Your task to perform on an android device: refresh tabs in the chrome app Image 0: 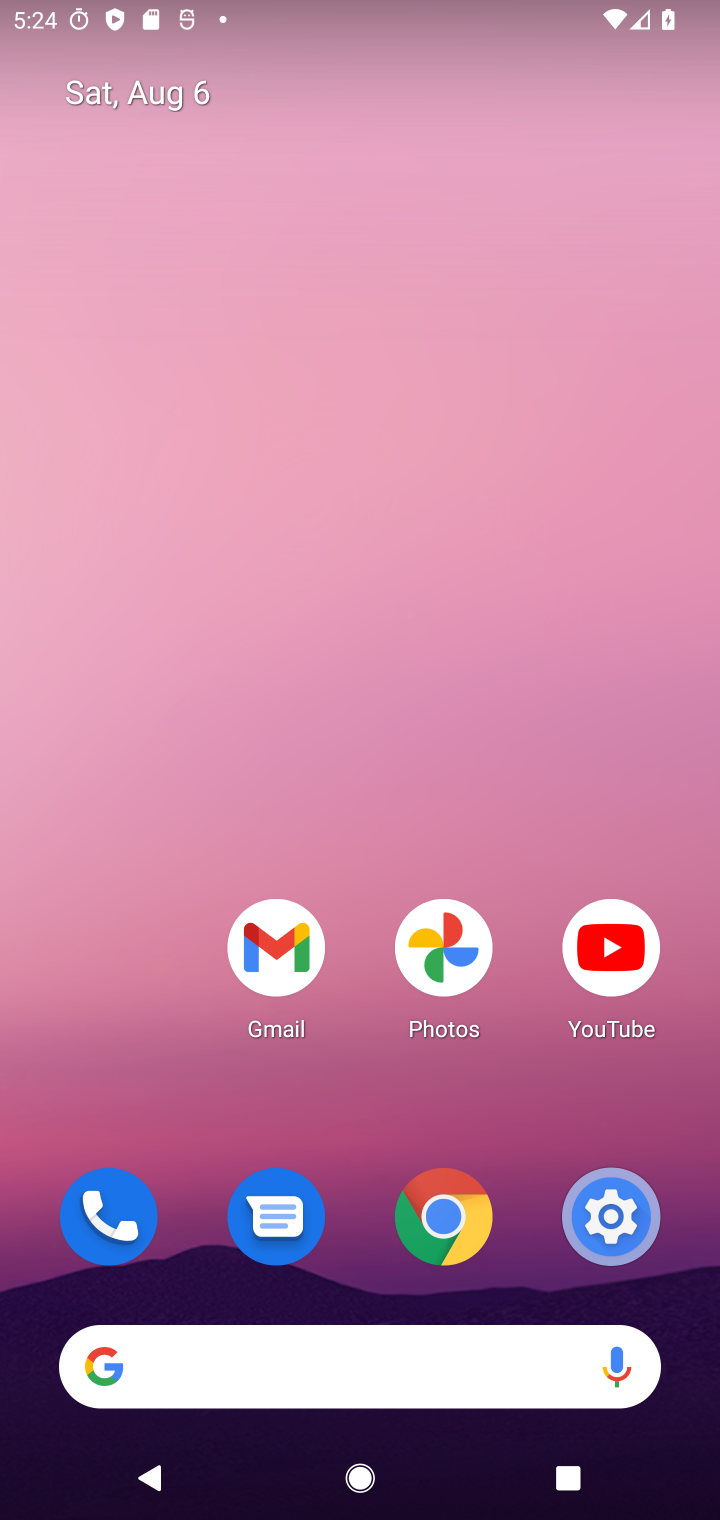
Step 0: drag from (353, 1078) to (564, 2)
Your task to perform on an android device: refresh tabs in the chrome app Image 1: 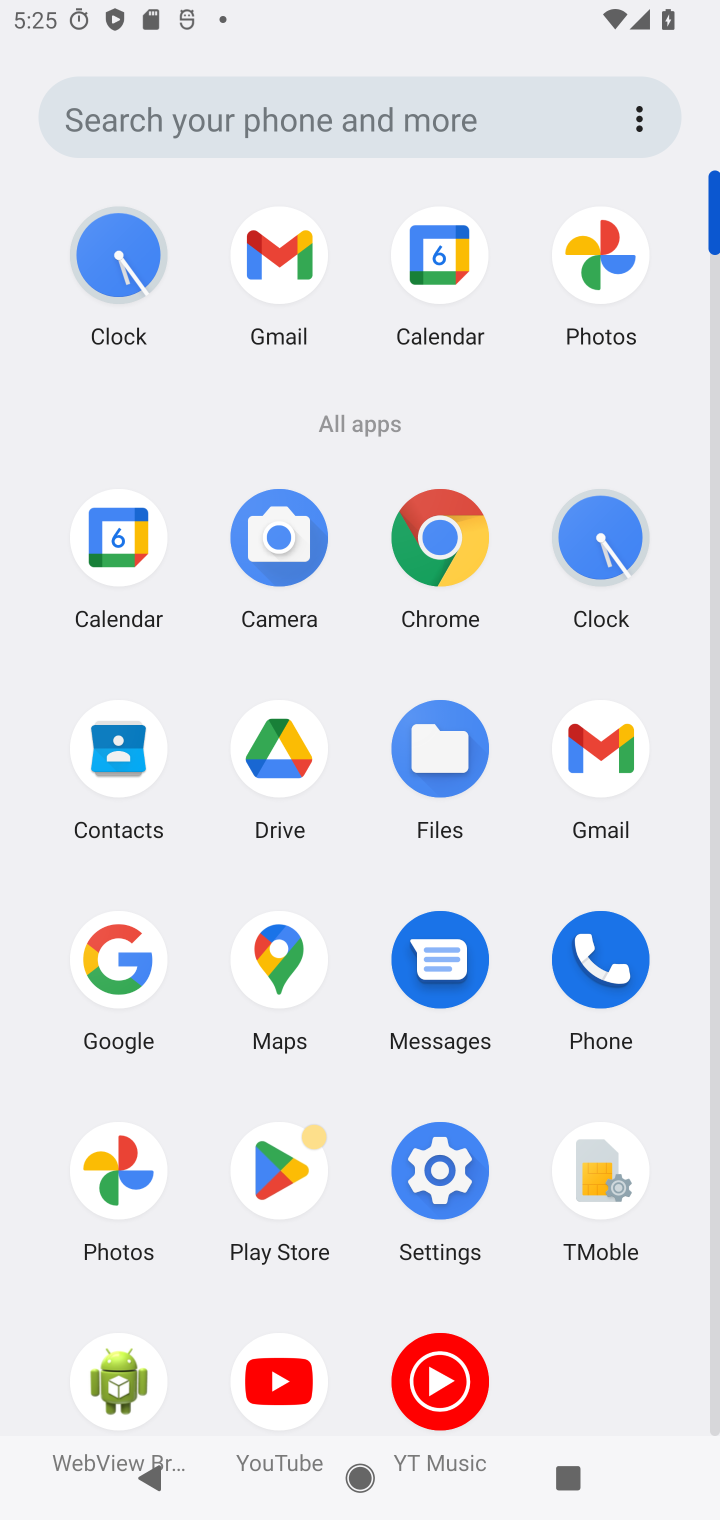
Step 1: click (445, 547)
Your task to perform on an android device: refresh tabs in the chrome app Image 2: 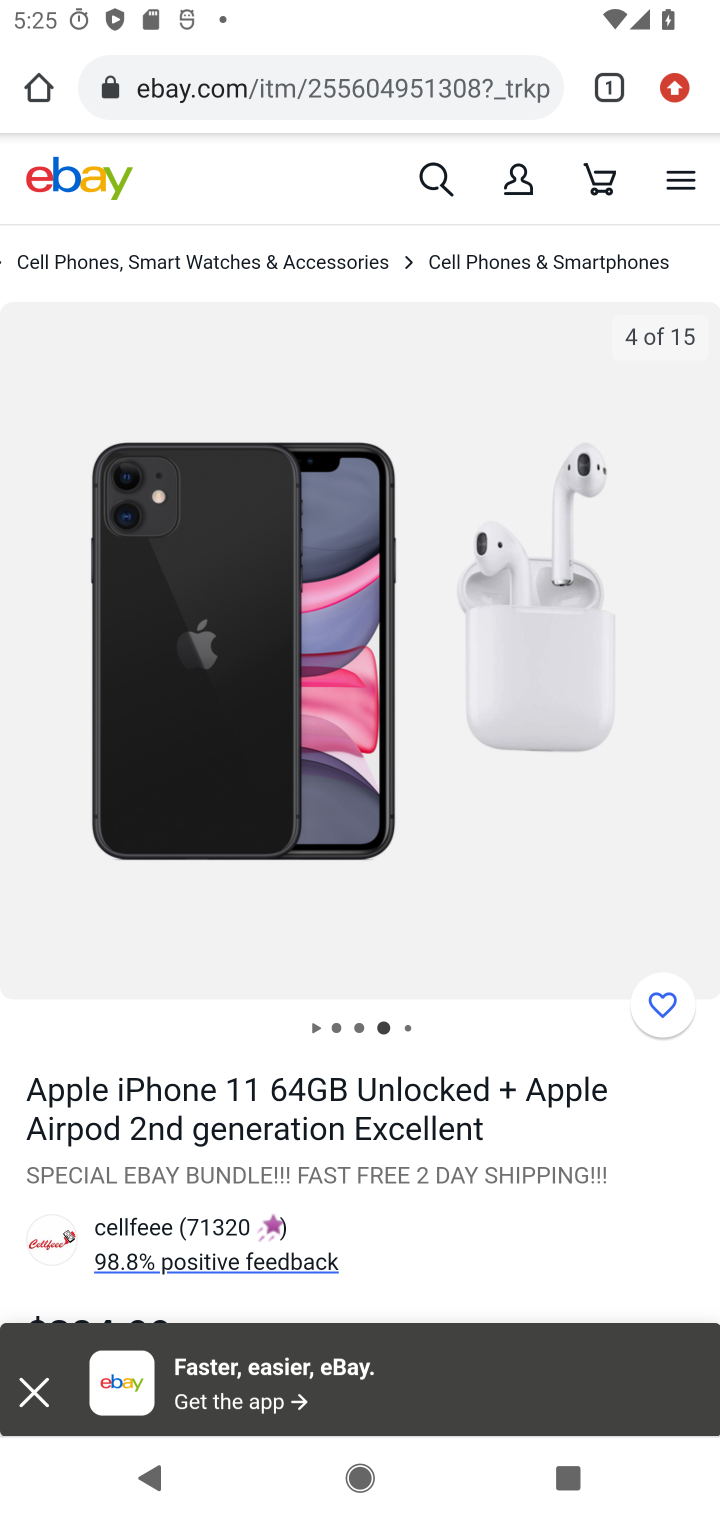
Step 2: click (697, 75)
Your task to perform on an android device: refresh tabs in the chrome app Image 3: 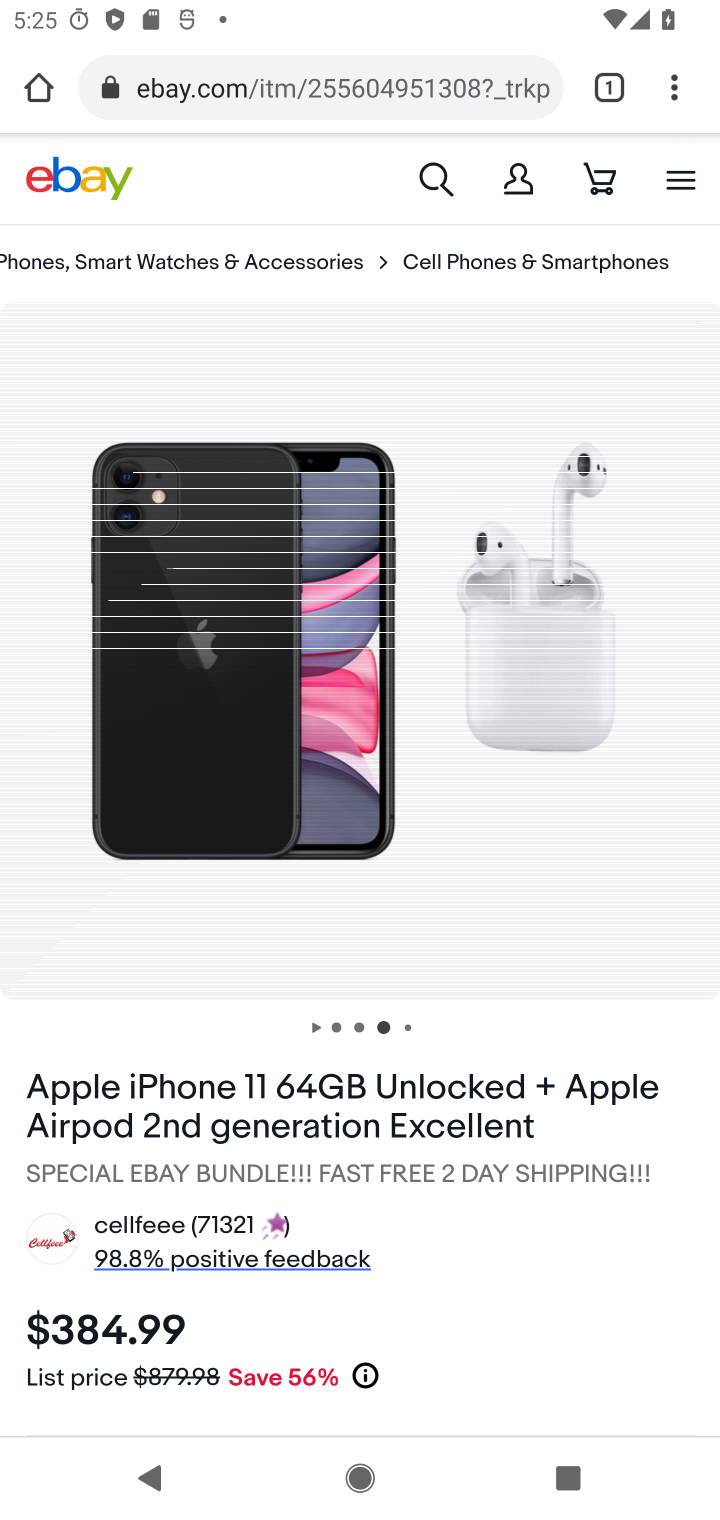
Step 3: task complete